Your task to perform on an android device: delete location history Image 0: 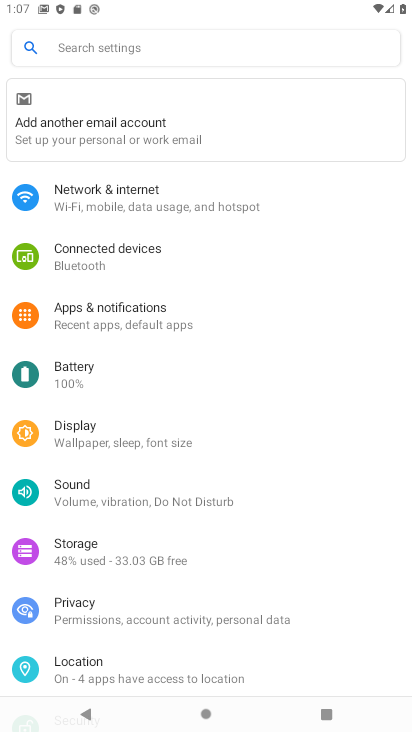
Step 0: press home button
Your task to perform on an android device: delete location history Image 1: 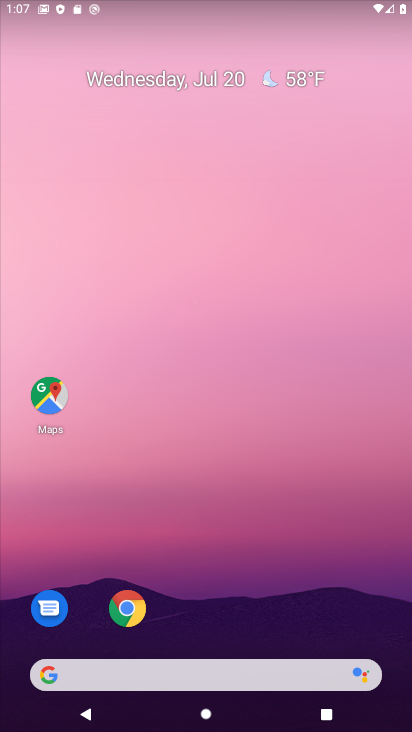
Step 1: drag from (232, 666) to (232, 132)
Your task to perform on an android device: delete location history Image 2: 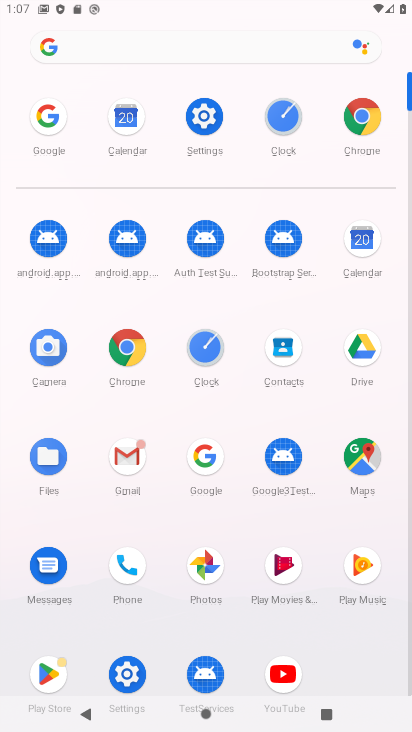
Step 2: click (357, 461)
Your task to perform on an android device: delete location history Image 3: 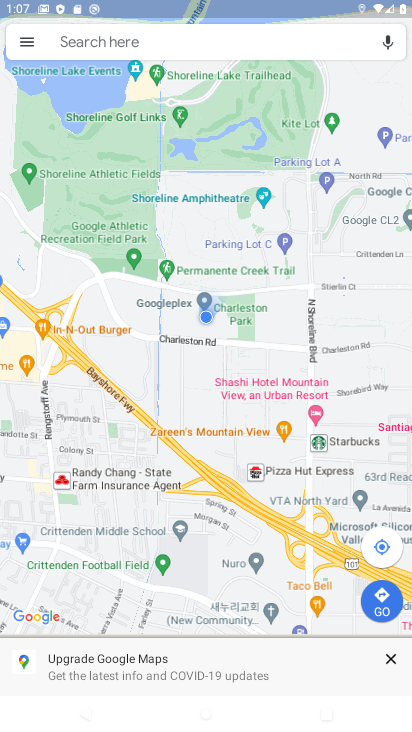
Step 3: click (23, 37)
Your task to perform on an android device: delete location history Image 4: 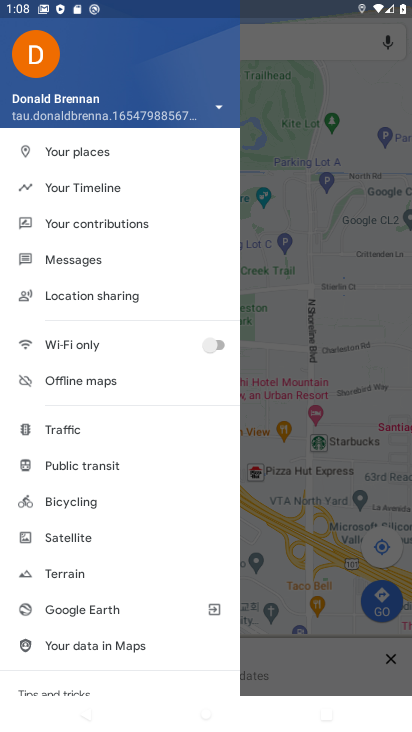
Step 4: click (81, 185)
Your task to perform on an android device: delete location history Image 5: 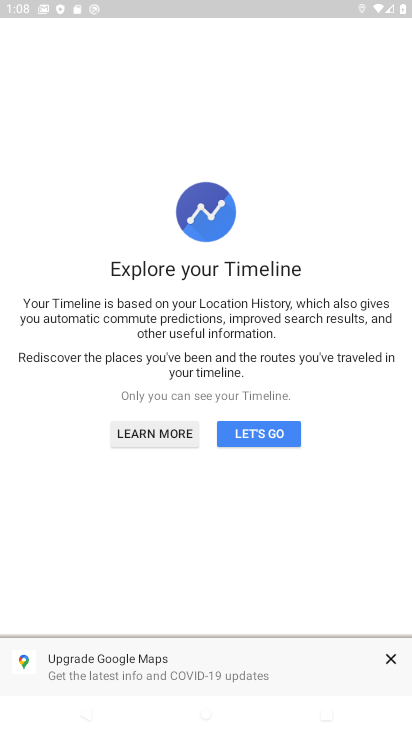
Step 5: click (250, 438)
Your task to perform on an android device: delete location history Image 6: 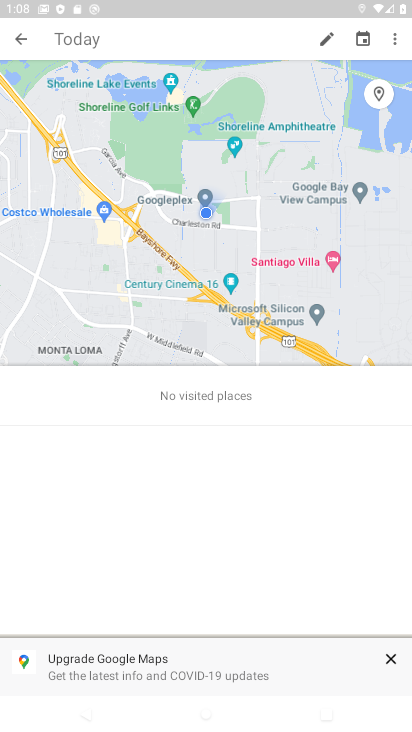
Step 6: click (392, 41)
Your task to perform on an android device: delete location history Image 7: 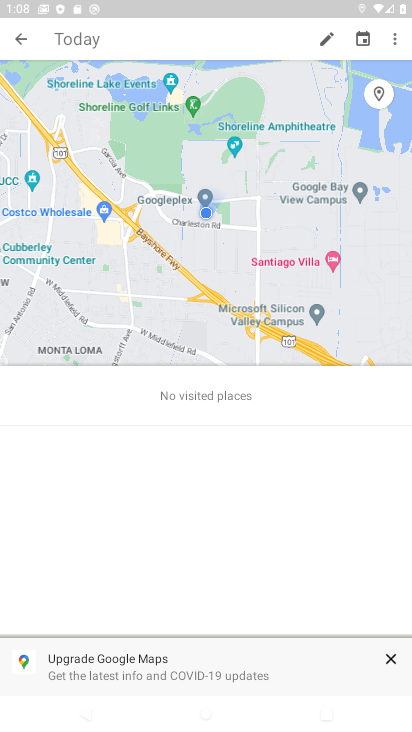
Step 7: click (398, 40)
Your task to perform on an android device: delete location history Image 8: 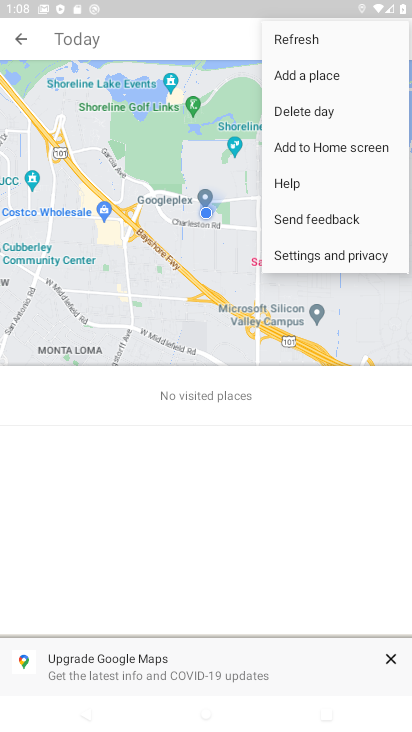
Step 8: click (281, 256)
Your task to perform on an android device: delete location history Image 9: 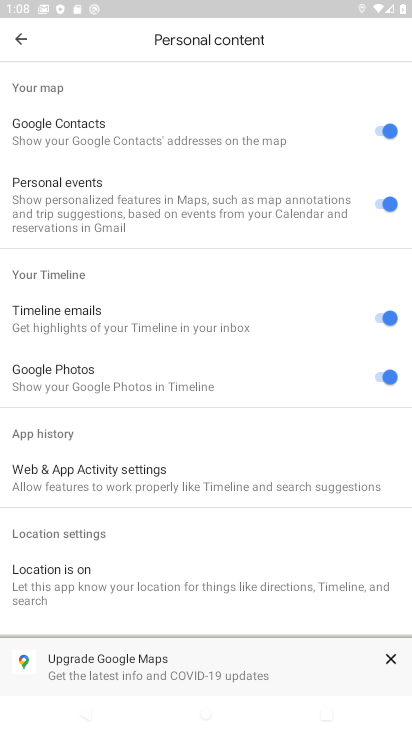
Step 9: drag from (146, 605) to (147, 527)
Your task to perform on an android device: delete location history Image 10: 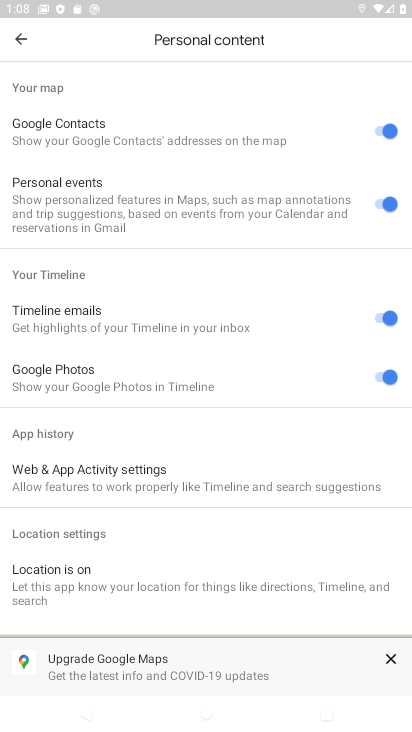
Step 10: drag from (142, 435) to (136, 395)
Your task to perform on an android device: delete location history Image 11: 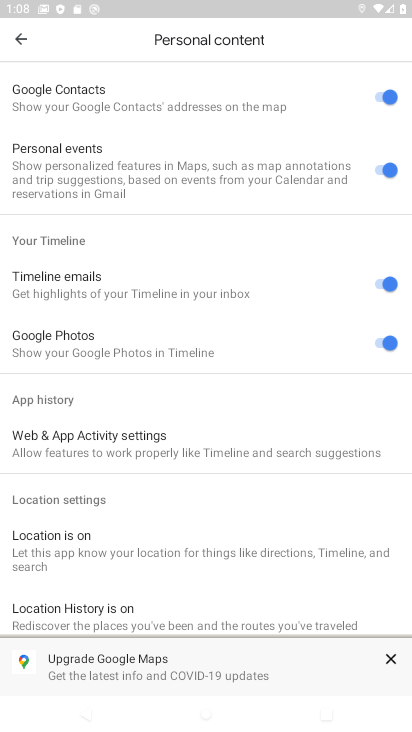
Step 11: drag from (128, 496) to (117, 355)
Your task to perform on an android device: delete location history Image 12: 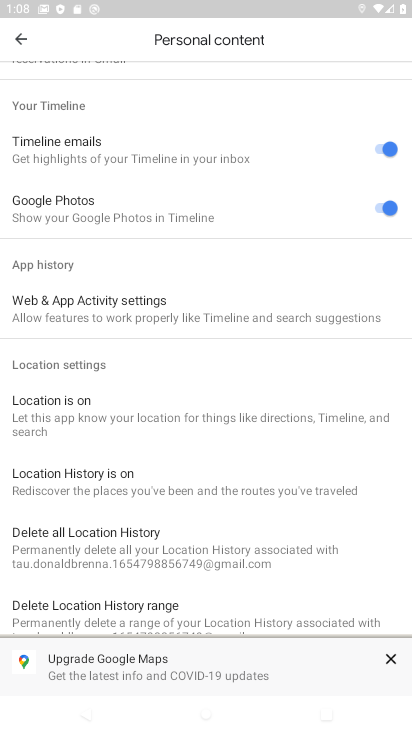
Step 12: click (75, 550)
Your task to perform on an android device: delete location history Image 13: 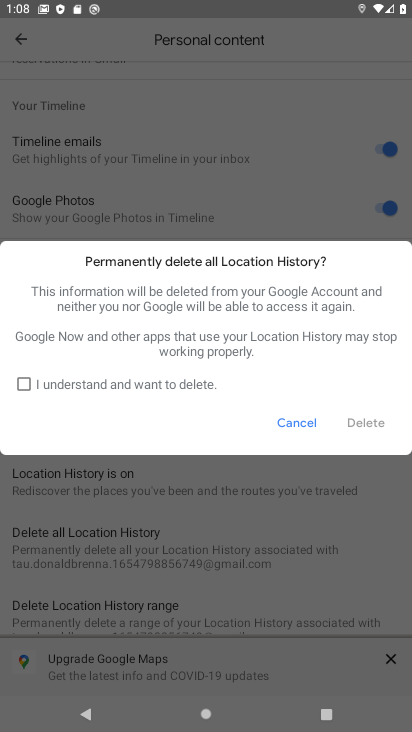
Step 13: click (18, 379)
Your task to perform on an android device: delete location history Image 14: 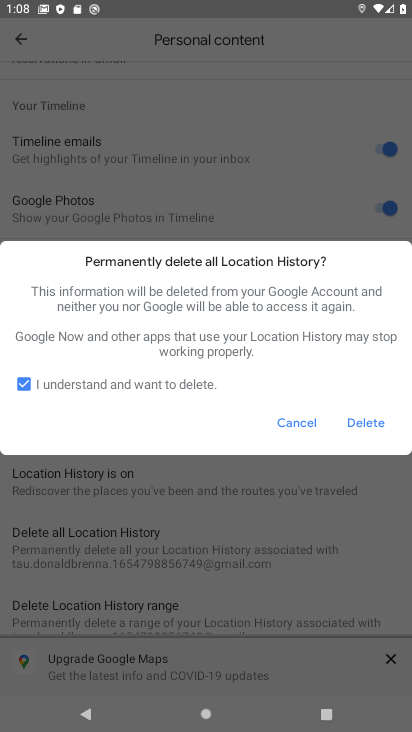
Step 14: click (370, 418)
Your task to perform on an android device: delete location history Image 15: 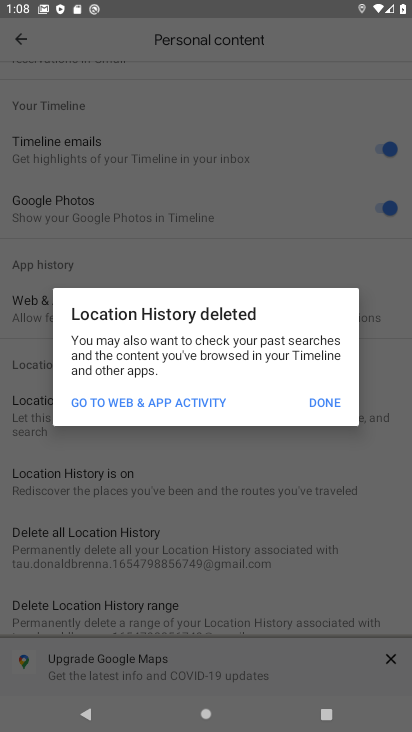
Step 15: click (333, 403)
Your task to perform on an android device: delete location history Image 16: 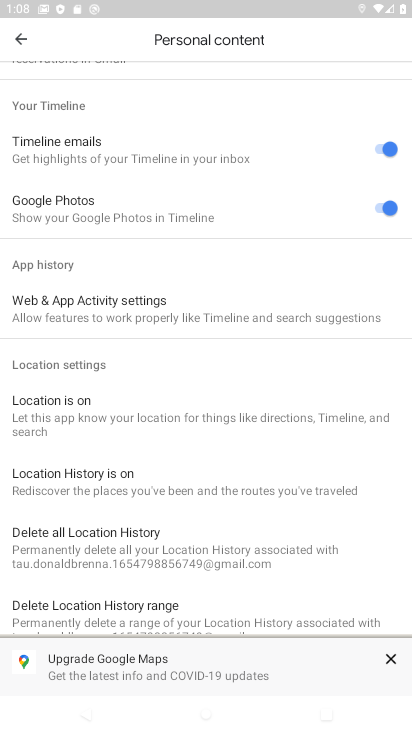
Step 16: task complete